Your task to perform on an android device: open app "Adobe Acrobat Reader: Edit PDF" (install if not already installed), go to login, and select forgot password Image 0: 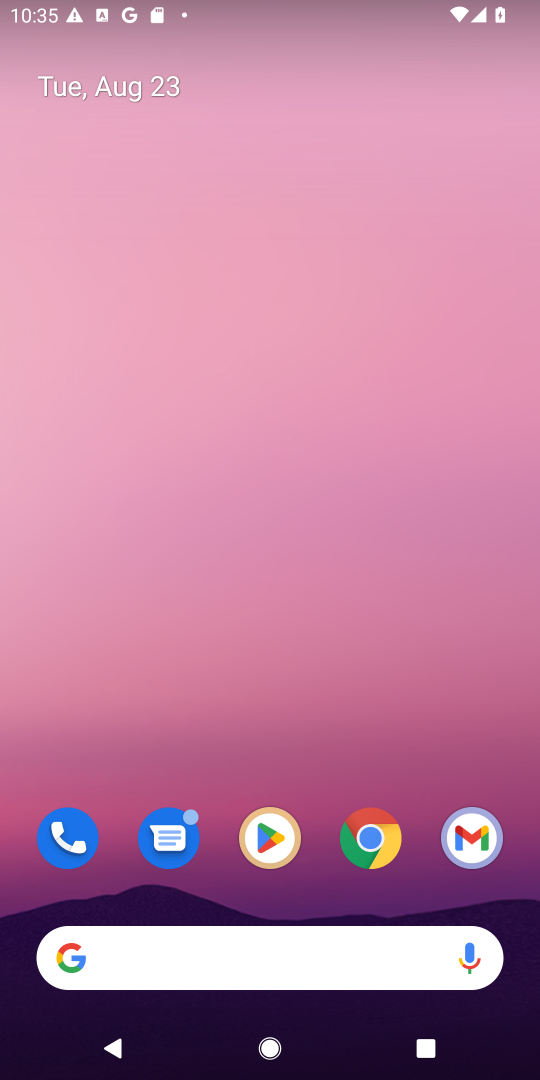
Step 0: click (284, 828)
Your task to perform on an android device: open app "Adobe Acrobat Reader: Edit PDF" (install if not already installed), go to login, and select forgot password Image 1: 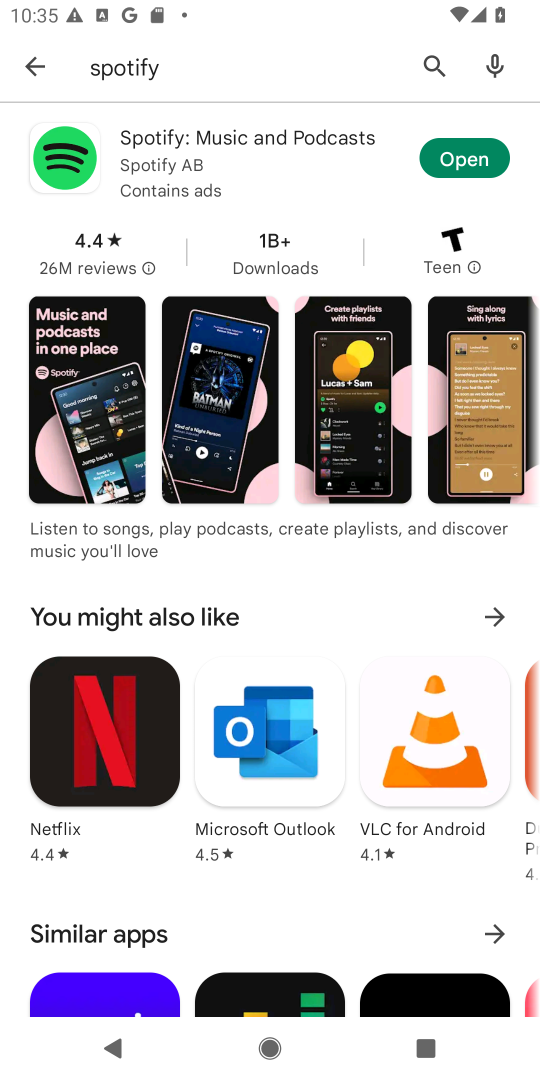
Step 1: click (435, 50)
Your task to perform on an android device: open app "Adobe Acrobat Reader: Edit PDF" (install if not already installed), go to login, and select forgot password Image 2: 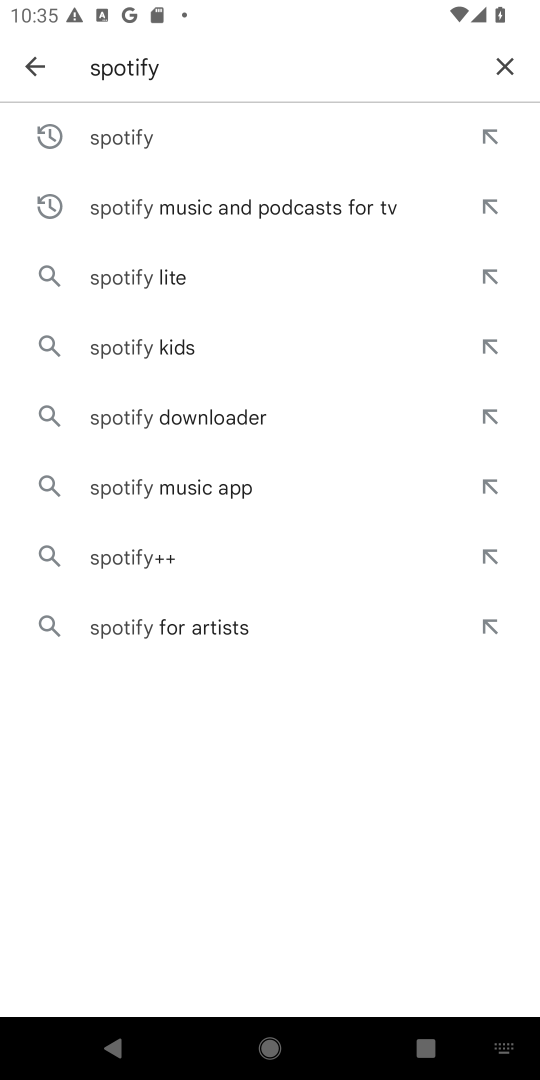
Step 2: click (505, 46)
Your task to perform on an android device: open app "Adobe Acrobat Reader: Edit PDF" (install if not already installed), go to login, and select forgot password Image 3: 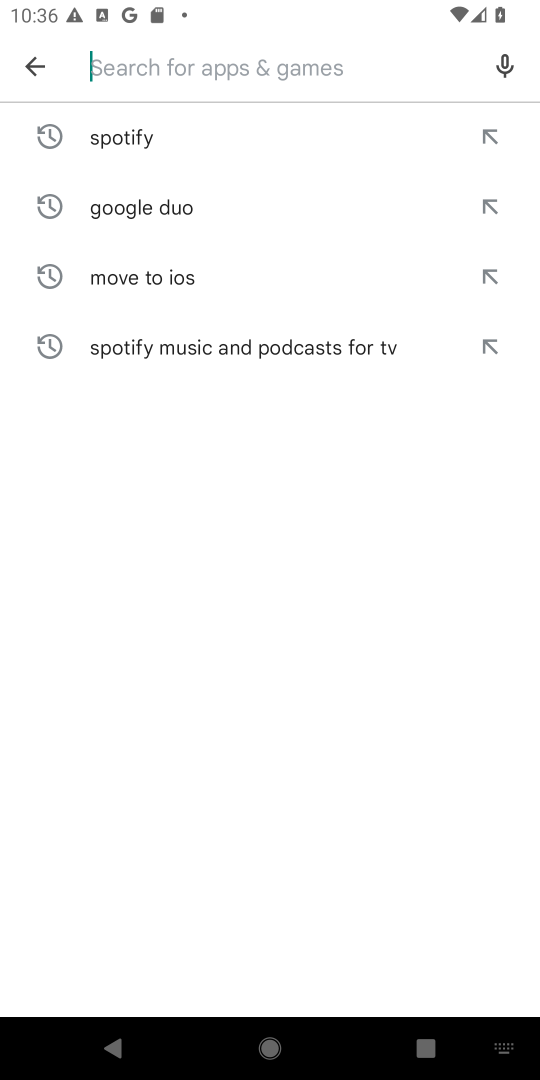
Step 3: type "Adobe Acrobat Reader: Edit PDF"
Your task to perform on an android device: open app "Adobe Acrobat Reader: Edit PDF" (install if not already installed), go to login, and select forgot password Image 4: 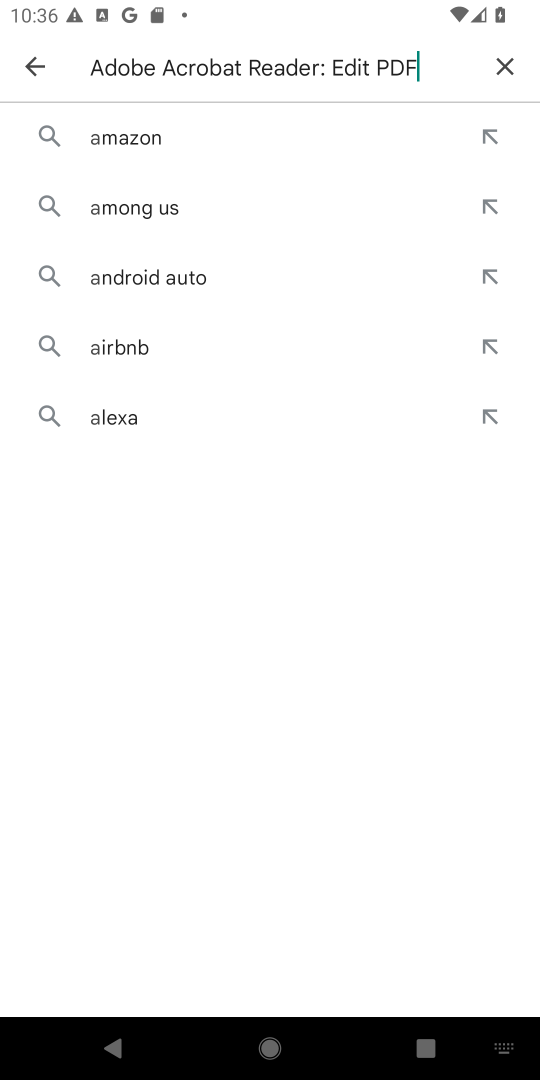
Step 4: type ""
Your task to perform on an android device: open app "Adobe Acrobat Reader: Edit PDF" (install if not already installed), go to login, and select forgot password Image 5: 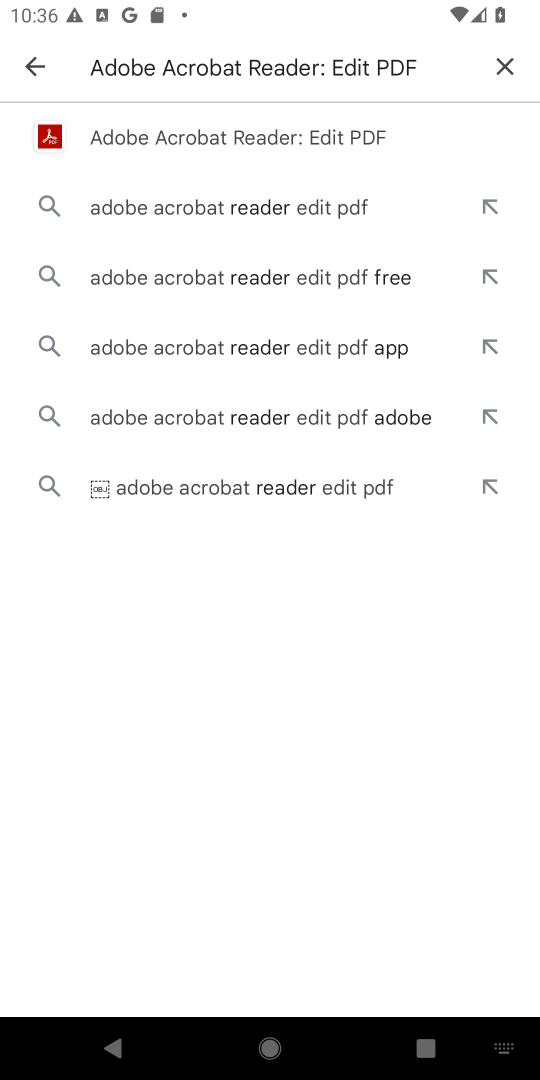
Step 5: click (147, 140)
Your task to perform on an android device: open app "Adobe Acrobat Reader: Edit PDF" (install if not already installed), go to login, and select forgot password Image 6: 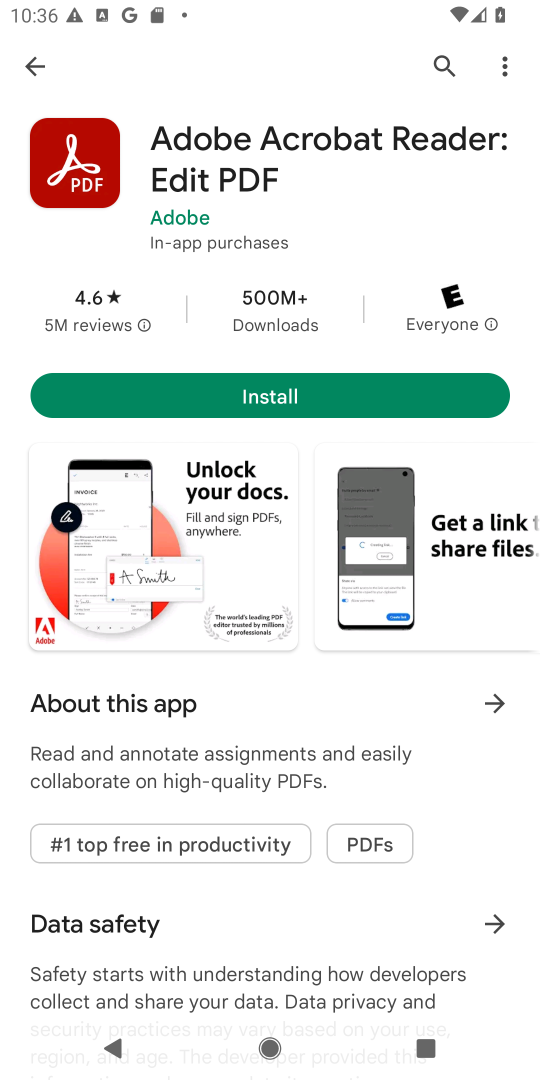
Step 6: click (251, 387)
Your task to perform on an android device: open app "Adobe Acrobat Reader: Edit PDF" (install if not already installed), go to login, and select forgot password Image 7: 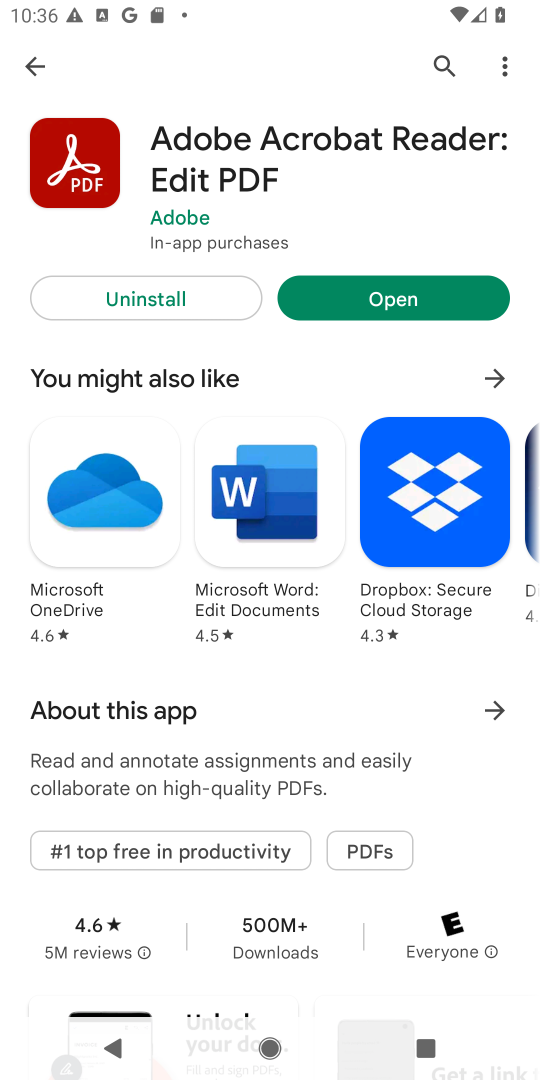
Step 7: click (438, 295)
Your task to perform on an android device: open app "Adobe Acrobat Reader: Edit PDF" (install if not already installed), go to login, and select forgot password Image 8: 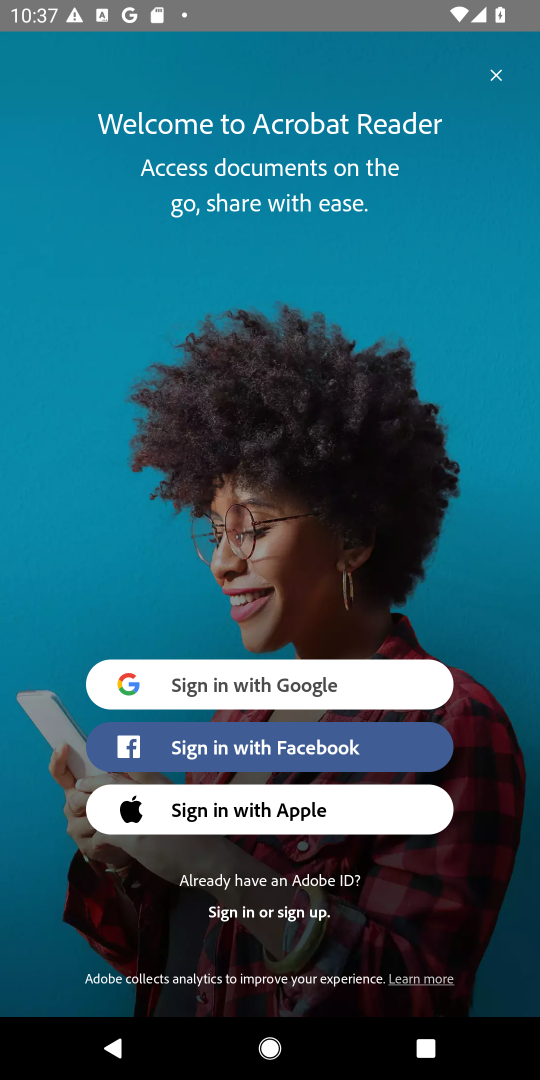
Step 8: task complete